Your task to perform on an android device: open app "ColorNote Notepad Notes" (install if not already installed) Image 0: 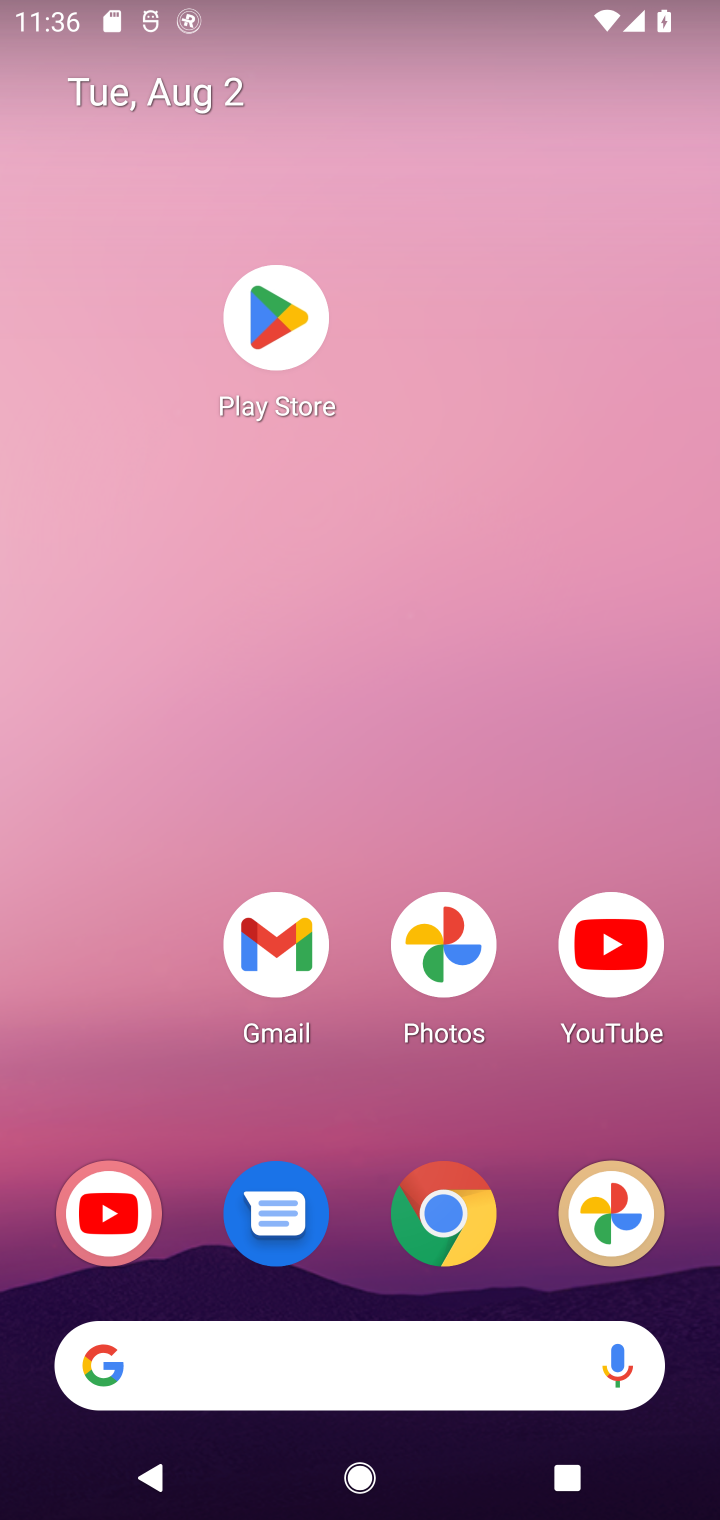
Step 0: click (294, 313)
Your task to perform on an android device: open app "ColorNote Notepad Notes" (install if not already installed) Image 1: 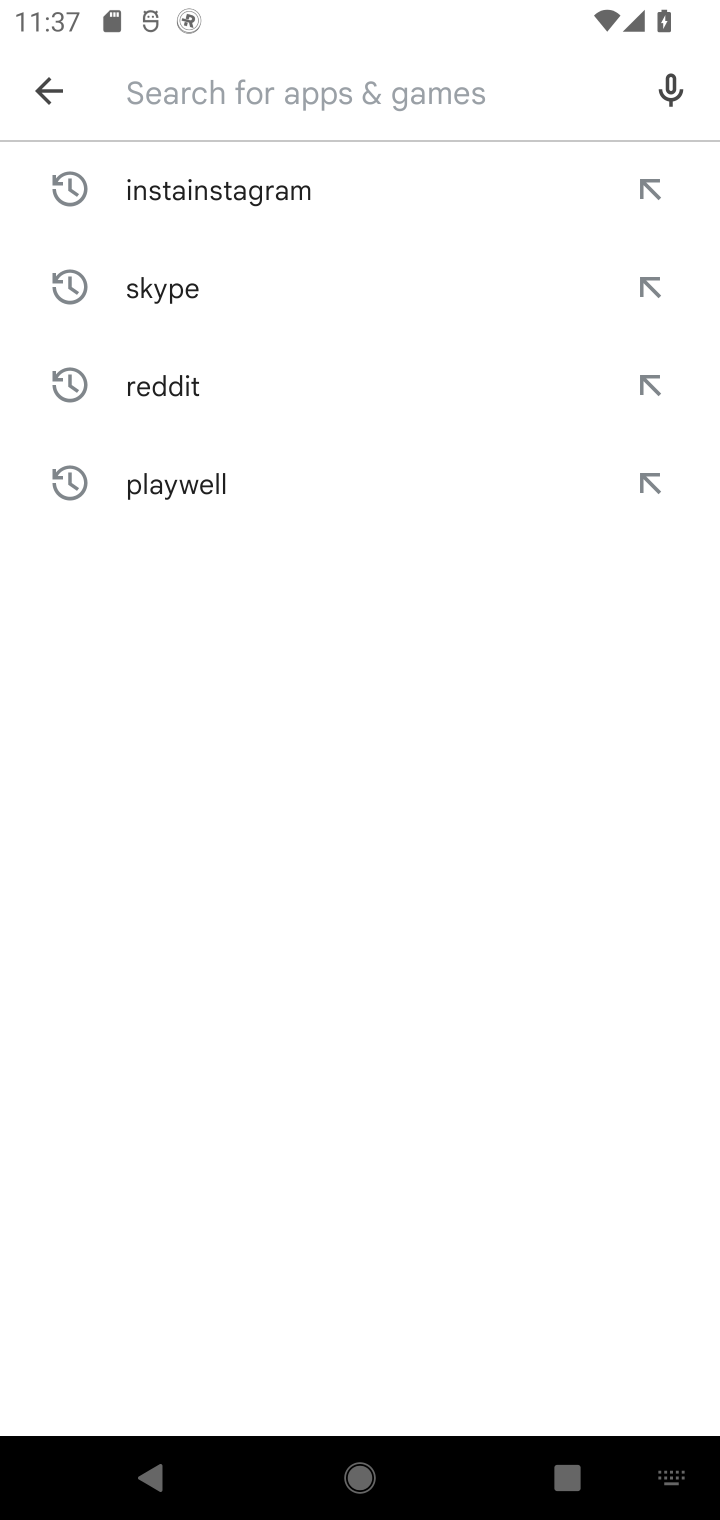
Step 1: type "colornote notepad notes"
Your task to perform on an android device: open app "ColorNote Notepad Notes" (install if not already installed) Image 2: 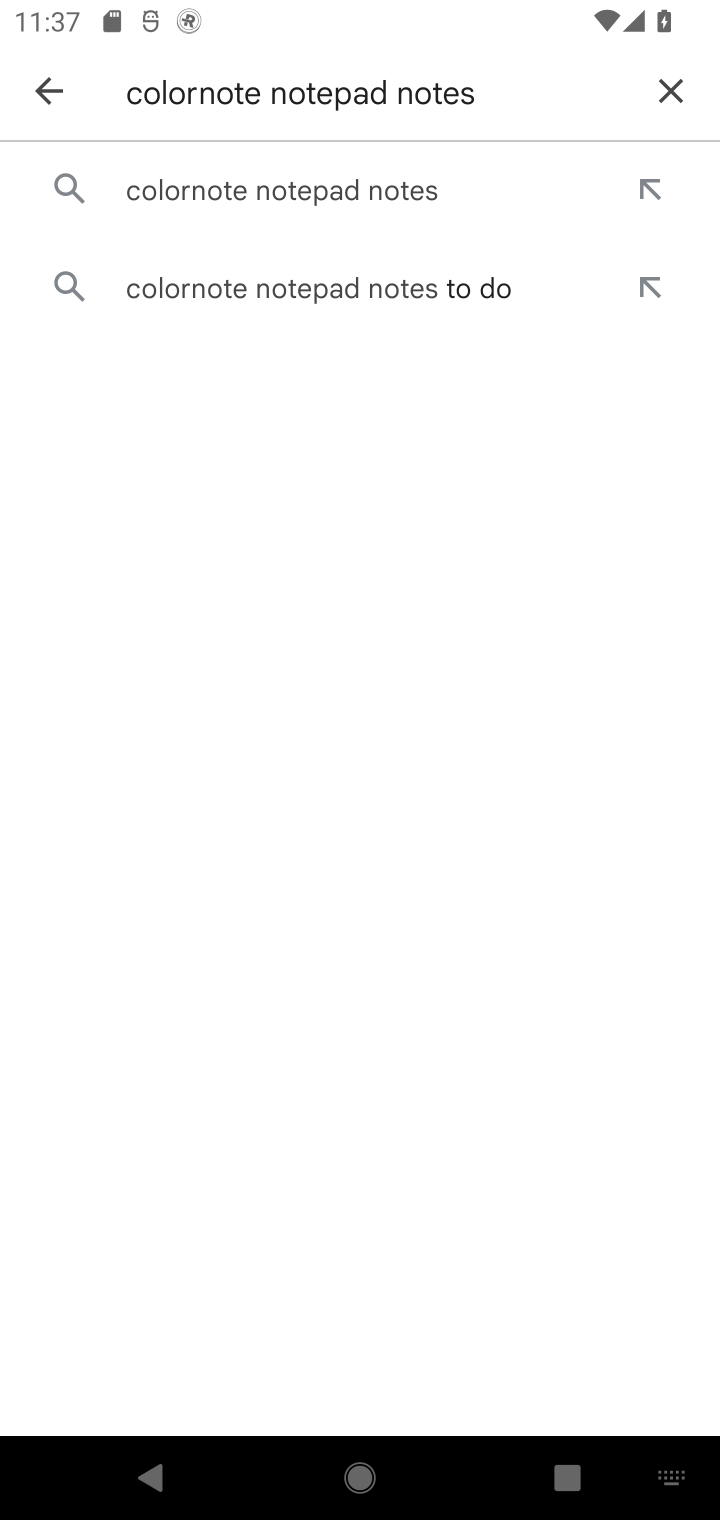
Step 2: click (221, 206)
Your task to perform on an android device: open app "ColorNote Notepad Notes" (install if not already installed) Image 3: 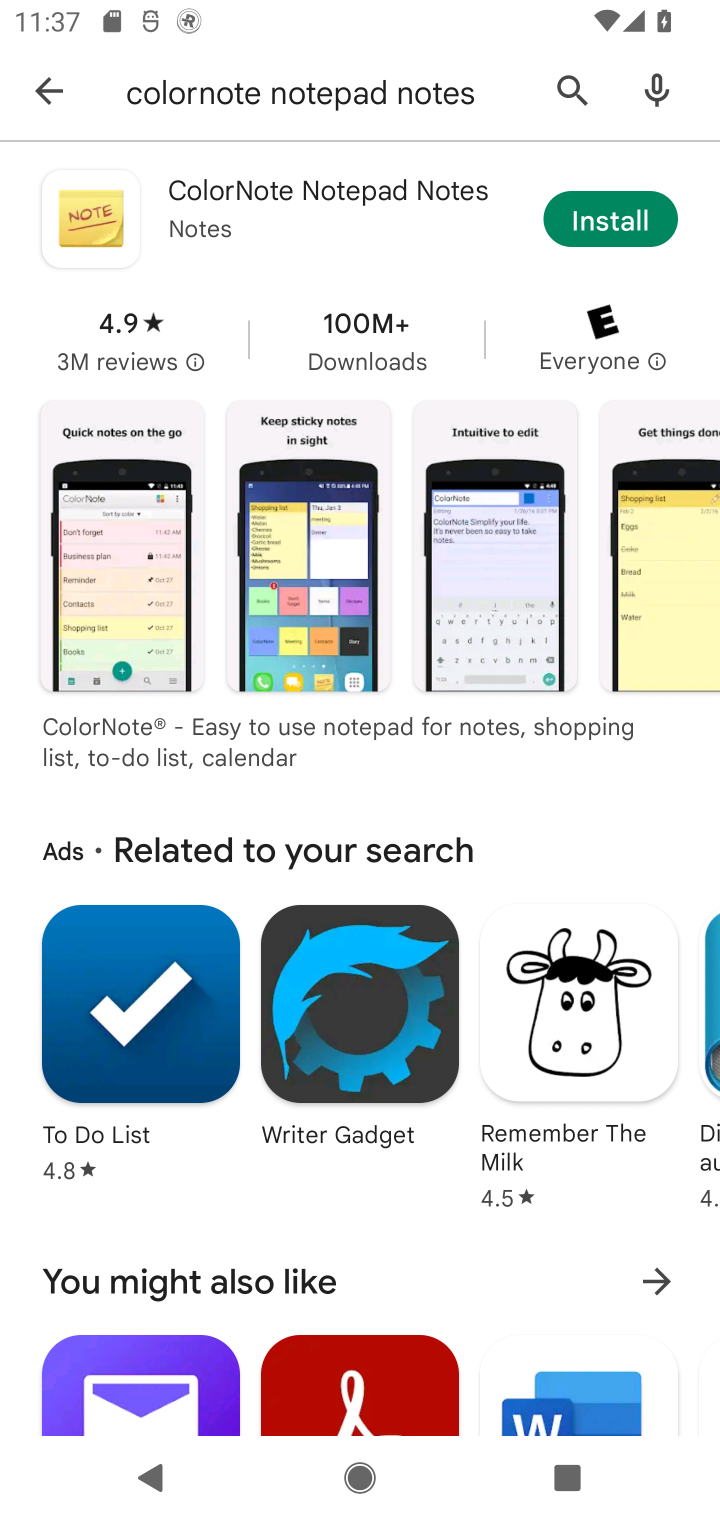
Step 3: click (642, 205)
Your task to perform on an android device: open app "ColorNote Notepad Notes" (install if not already installed) Image 4: 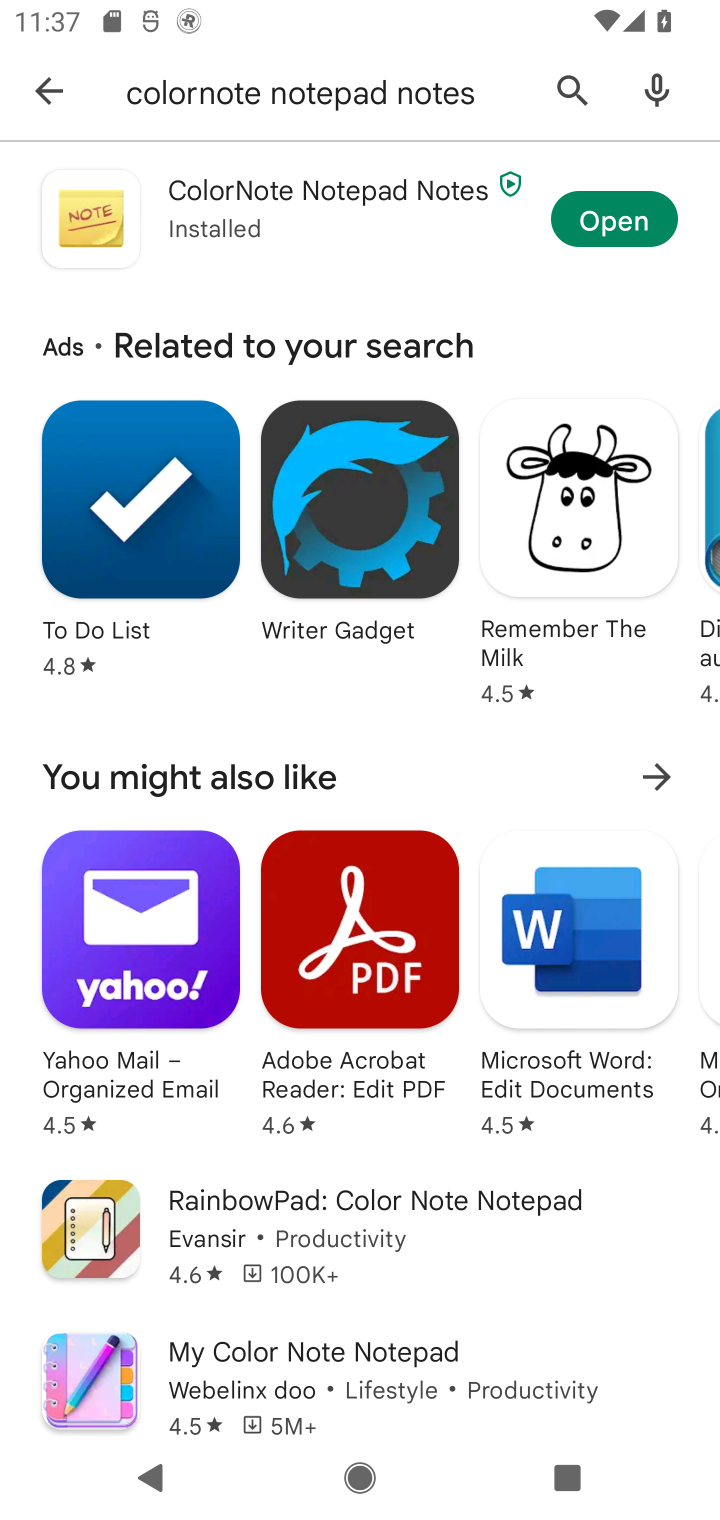
Step 4: click (596, 202)
Your task to perform on an android device: open app "ColorNote Notepad Notes" (install if not already installed) Image 5: 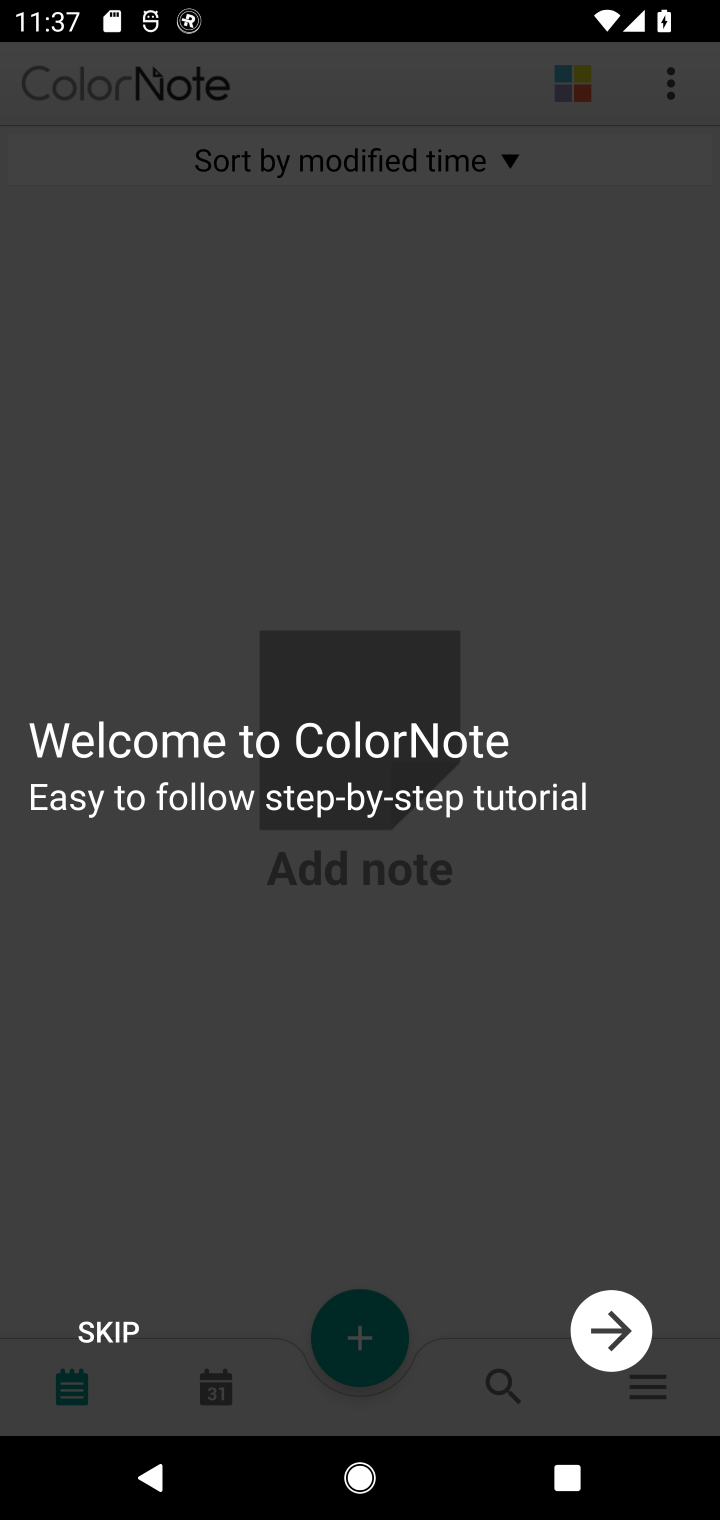
Step 5: task complete